Your task to perform on an android device: Go to Reddit.com Image 0: 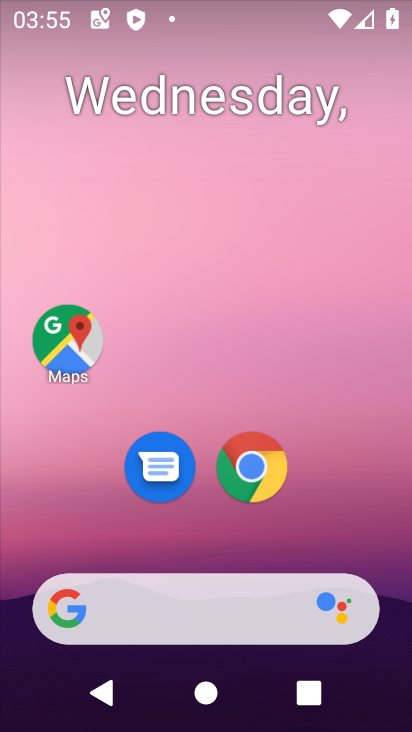
Step 0: click (238, 463)
Your task to perform on an android device: Go to Reddit.com Image 1: 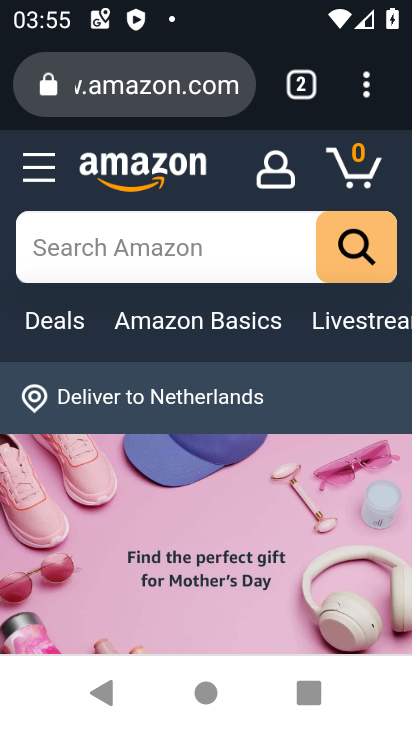
Step 1: click (116, 81)
Your task to perform on an android device: Go to Reddit.com Image 2: 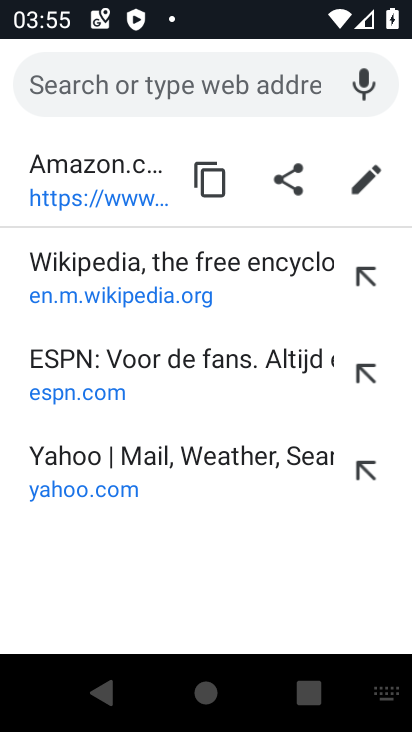
Step 2: type "reddit.com"
Your task to perform on an android device: Go to Reddit.com Image 3: 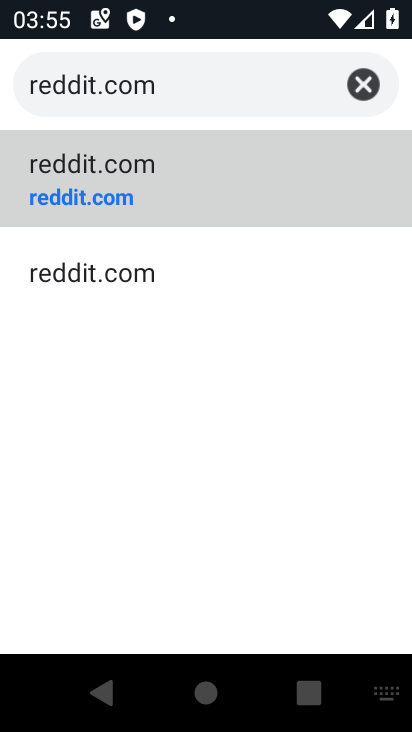
Step 3: click (67, 208)
Your task to perform on an android device: Go to Reddit.com Image 4: 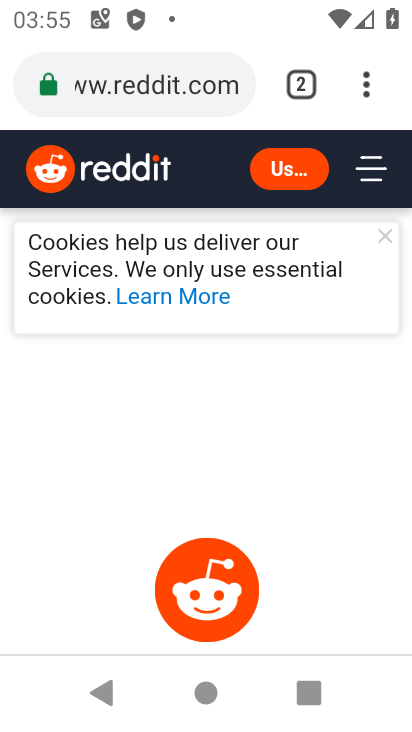
Step 4: task complete